Your task to perform on an android device: Go to settings Image 0: 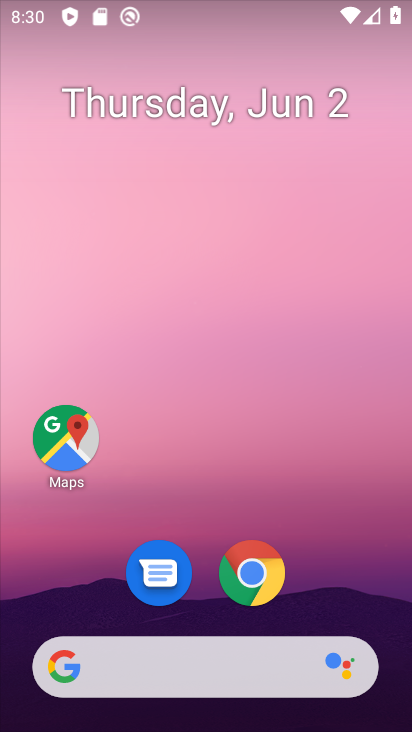
Step 0: drag from (343, 593) to (356, 70)
Your task to perform on an android device: Go to settings Image 1: 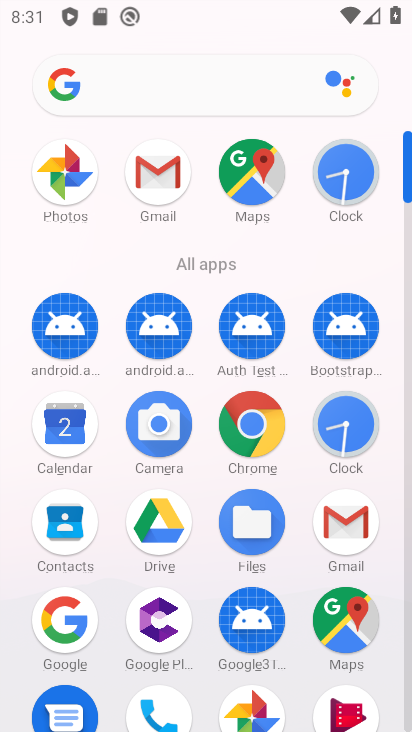
Step 1: drag from (294, 606) to (310, 43)
Your task to perform on an android device: Go to settings Image 2: 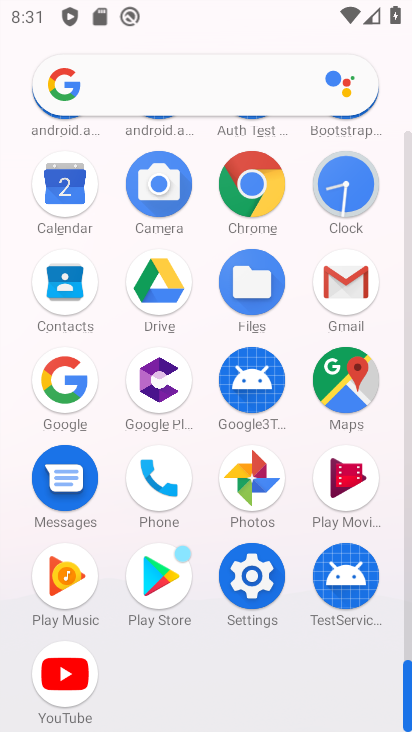
Step 2: click (265, 573)
Your task to perform on an android device: Go to settings Image 3: 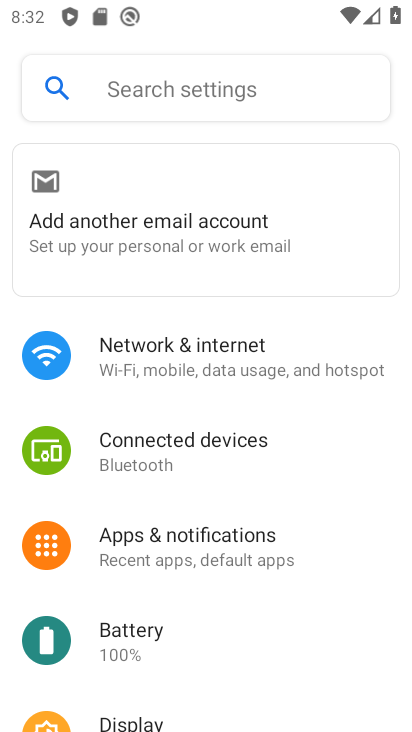
Step 3: task complete